Your task to perform on an android device: Open the calendar app, open the side menu, and click the "Day" option Image 0: 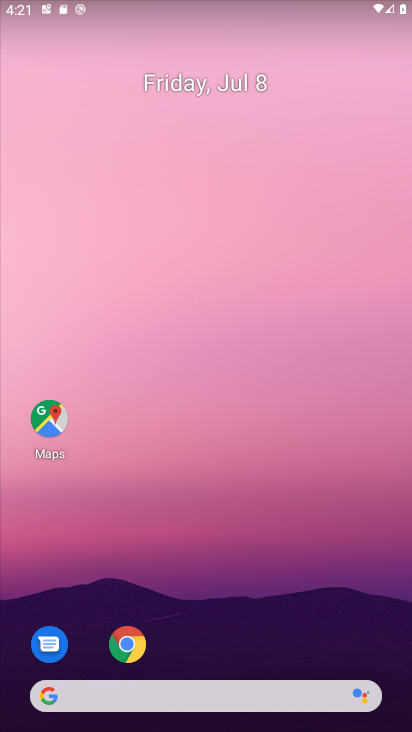
Step 0: drag from (360, 622) to (318, 141)
Your task to perform on an android device: Open the calendar app, open the side menu, and click the "Day" option Image 1: 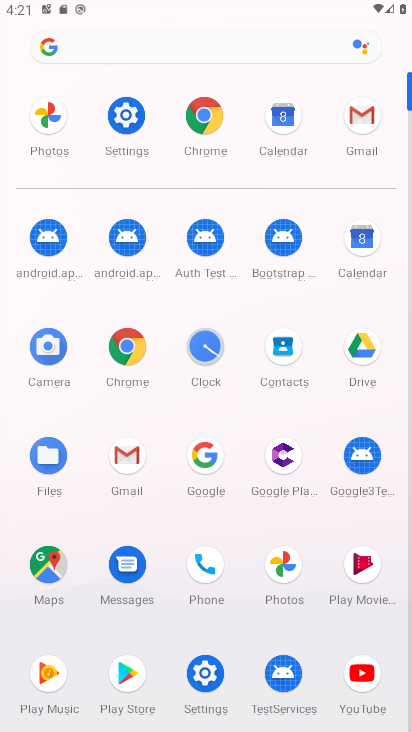
Step 1: click (361, 236)
Your task to perform on an android device: Open the calendar app, open the side menu, and click the "Day" option Image 2: 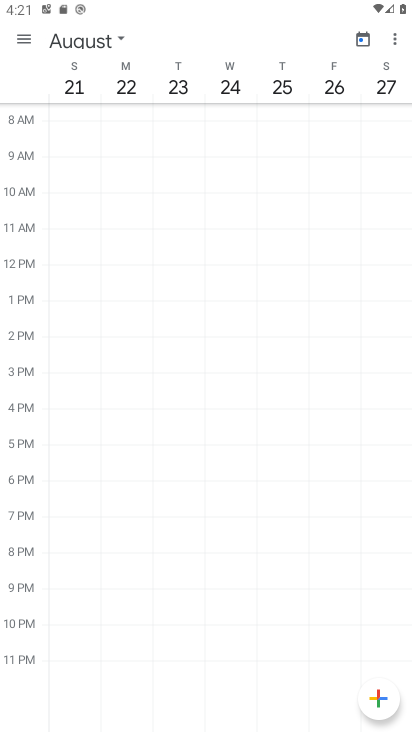
Step 2: click (28, 41)
Your task to perform on an android device: Open the calendar app, open the side menu, and click the "Day" option Image 3: 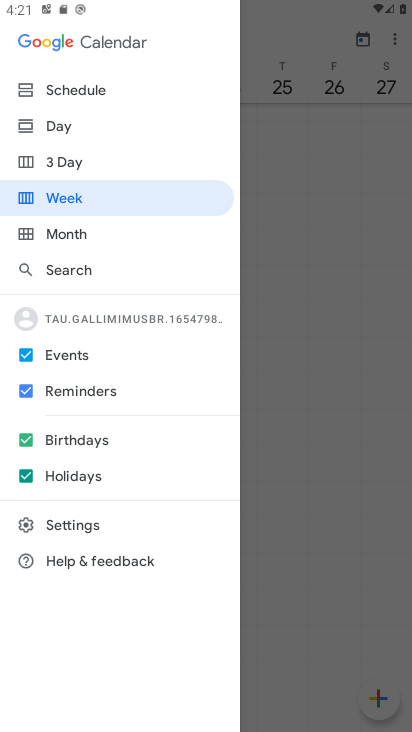
Step 3: click (59, 132)
Your task to perform on an android device: Open the calendar app, open the side menu, and click the "Day" option Image 4: 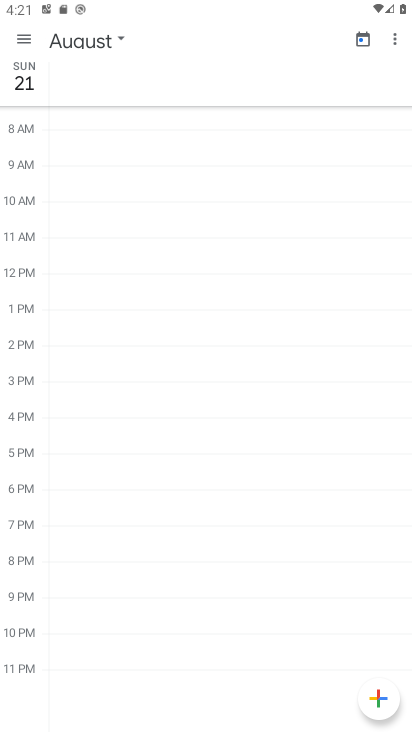
Step 4: task complete